Your task to perform on an android device: Go to wifi settings Image 0: 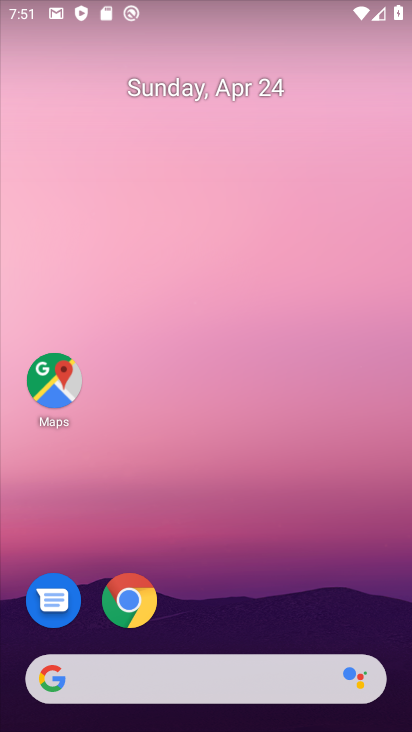
Step 0: drag from (257, 619) to (290, 130)
Your task to perform on an android device: Go to wifi settings Image 1: 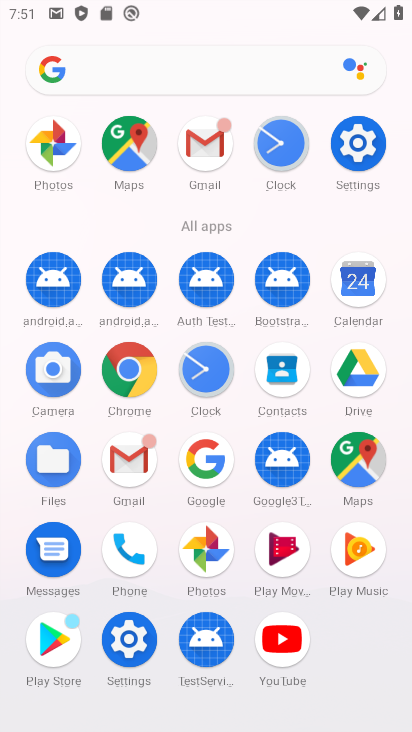
Step 1: drag from (263, 27) to (237, 349)
Your task to perform on an android device: Go to wifi settings Image 2: 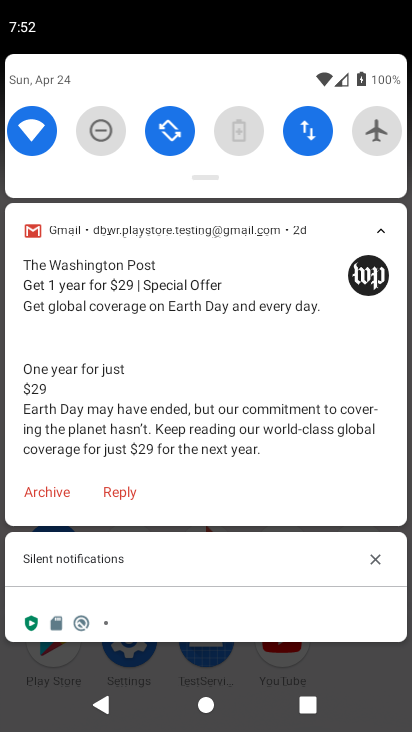
Step 2: click (32, 124)
Your task to perform on an android device: Go to wifi settings Image 3: 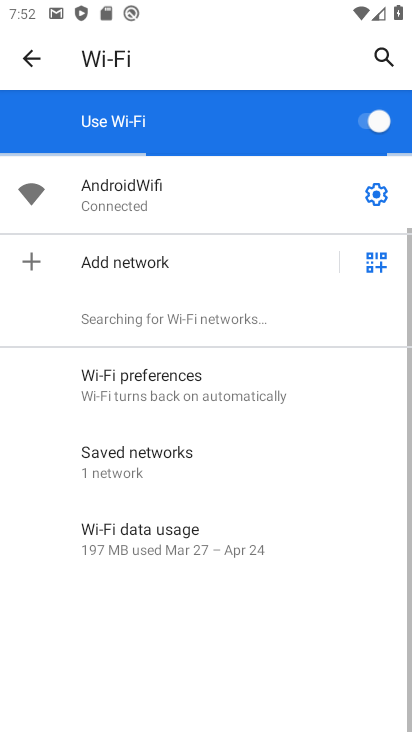
Step 3: task complete